Your task to perform on an android device: What's the weather going to be tomorrow? Image 0: 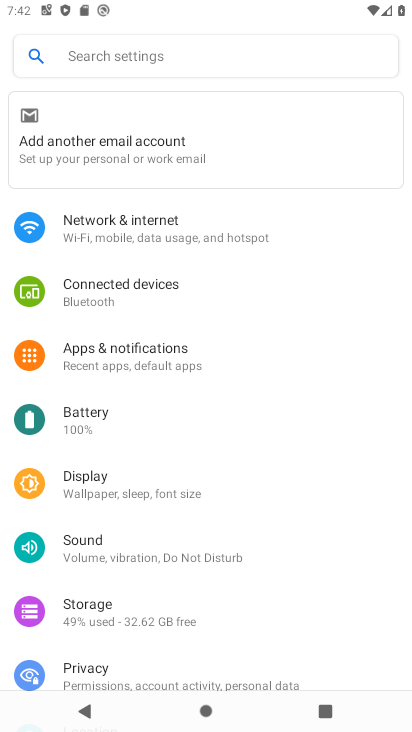
Step 0: press home button
Your task to perform on an android device: What's the weather going to be tomorrow? Image 1: 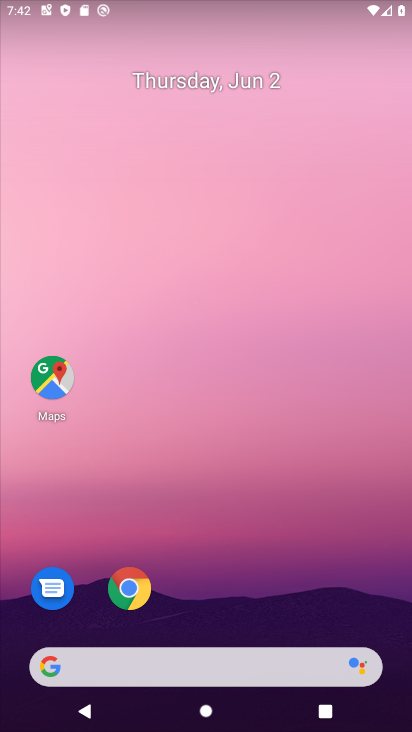
Step 1: drag from (232, 689) to (250, 68)
Your task to perform on an android device: What's the weather going to be tomorrow? Image 2: 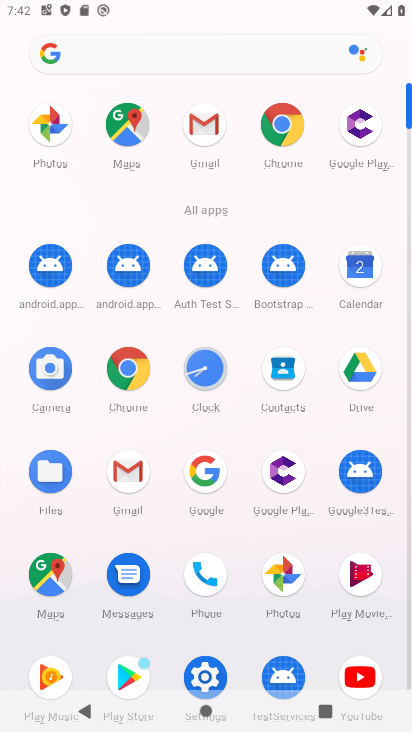
Step 2: click (195, 490)
Your task to perform on an android device: What's the weather going to be tomorrow? Image 3: 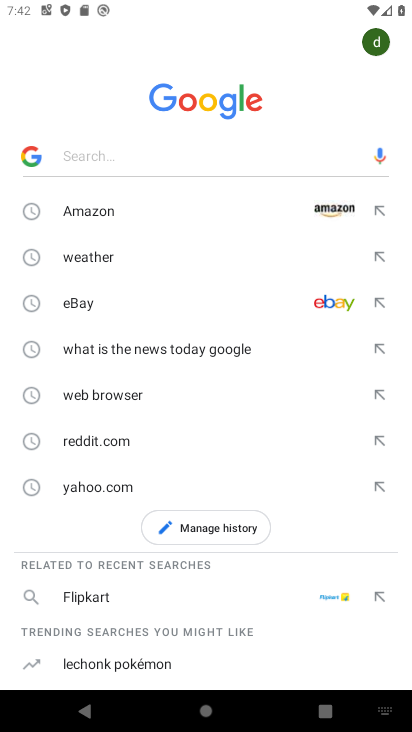
Step 3: click (137, 250)
Your task to perform on an android device: What's the weather going to be tomorrow? Image 4: 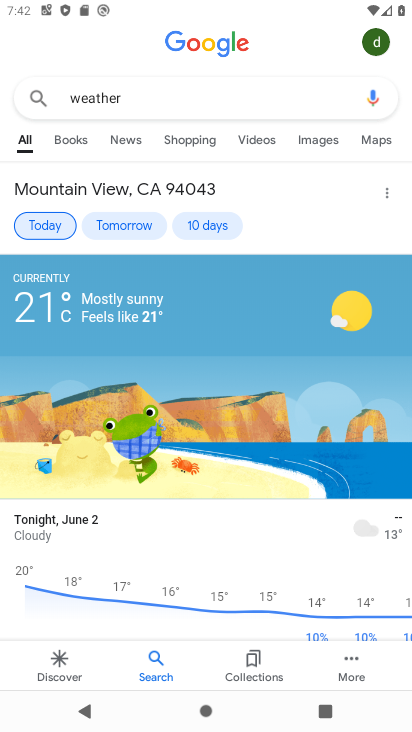
Step 4: click (145, 226)
Your task to perform on an android device: What's the weather going to be tomorrow? Image 5: 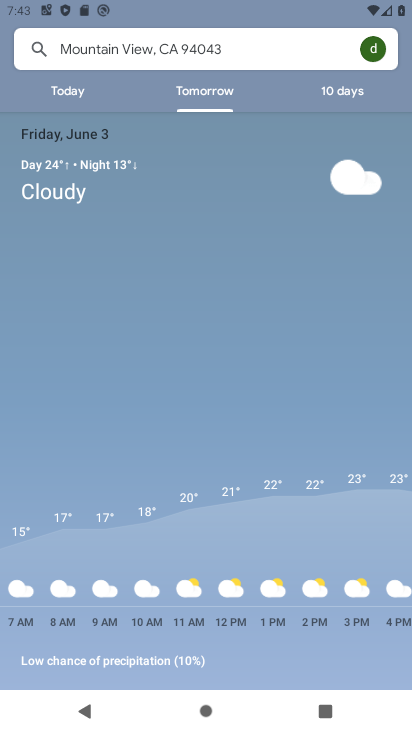
Step 5: task complete